Your task to perform on an android device: find snoozed emails in the gmail app Image 0: 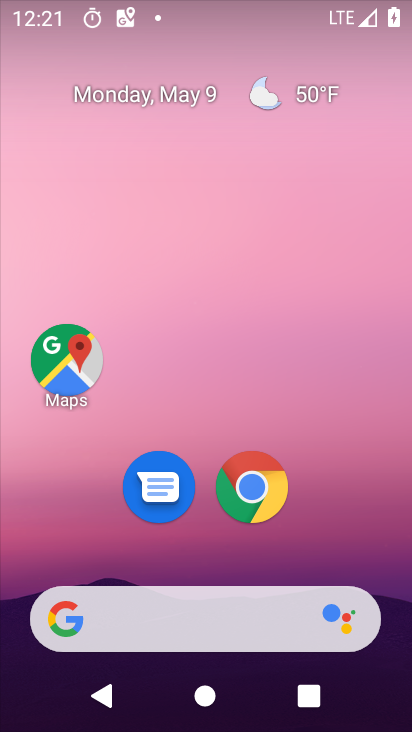
Step 0: drag from (329, 542) to (396, 91)
Your task to perform on an android device: find snoozed emails in the gmail app Image 1: 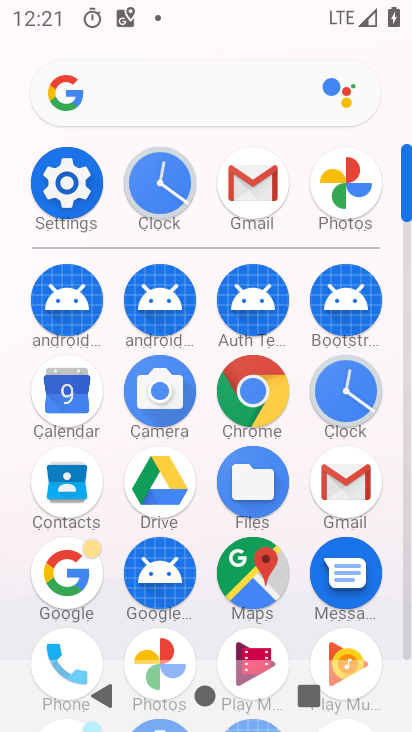
Step 1: click (269, 200)
Your task to perform on an android device: find snoozed emails in the gmail app Image 2: 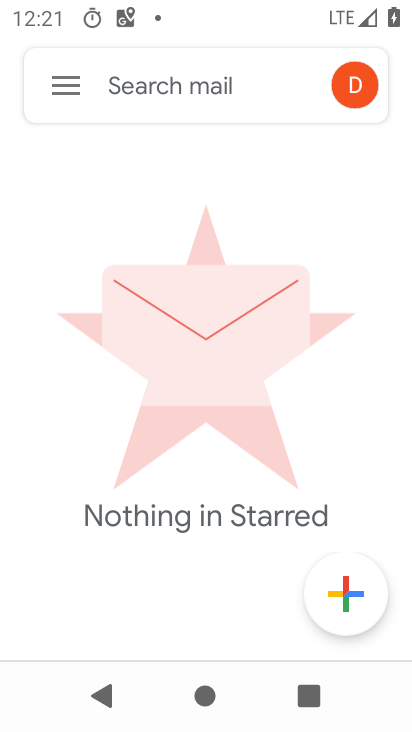
Step 2: click (71, 82)
Your task to perform on an android device: find snoozed emails in the gmail app Image 3: 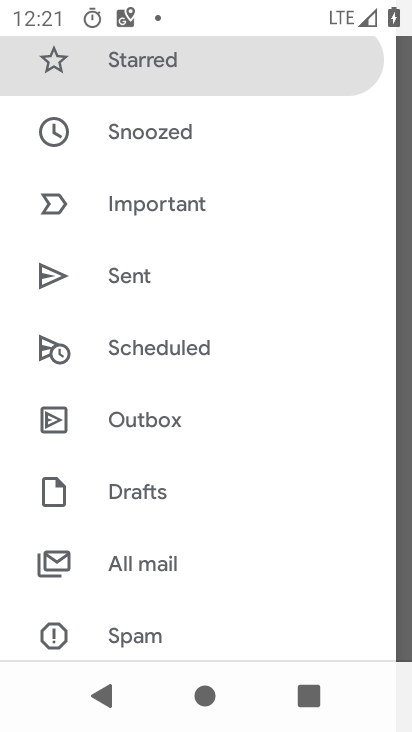
Step 3: click (148, 139)
Your task to perform on an android device: find snoozed emails in the gmail app Image 4: 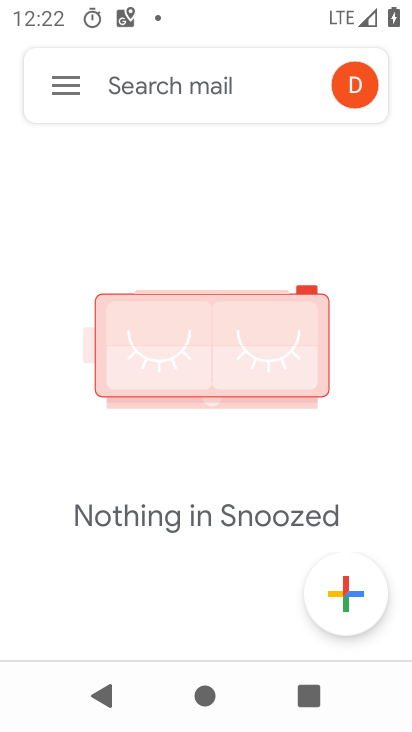
Step 4: click (74, 82)
Your task to perform on an android device: find snoozed emails in the gmail app Image 5: 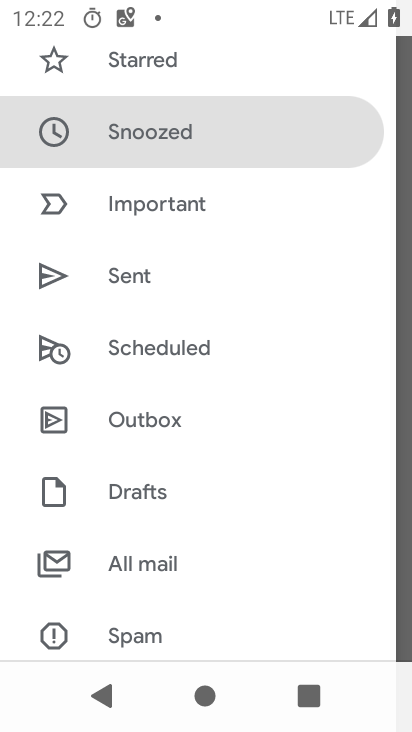
Step 5: click (138, 139)
Your task to perform on an android device: find snoozed emails in the gmail app Image 6: 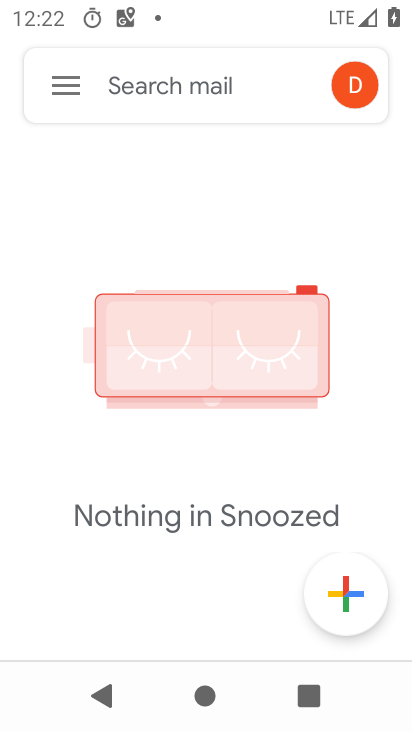
Step 6: task complete